Your task to perform on an android device: Open settings Image 0: 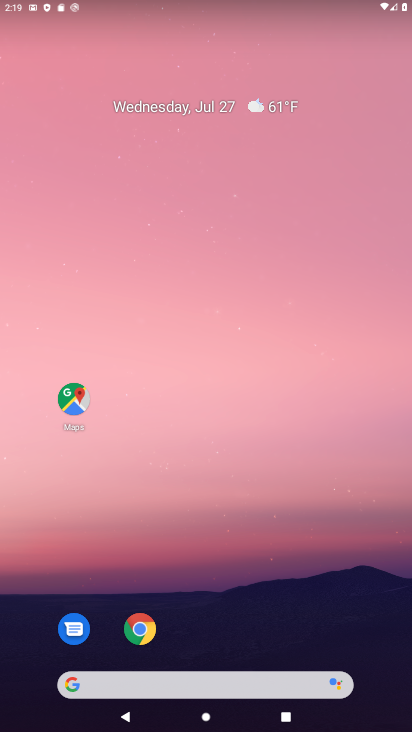
Step 0: drag from (348, 577) to (361, 4)
Your task to perform on an android device: Open settings Image 1: 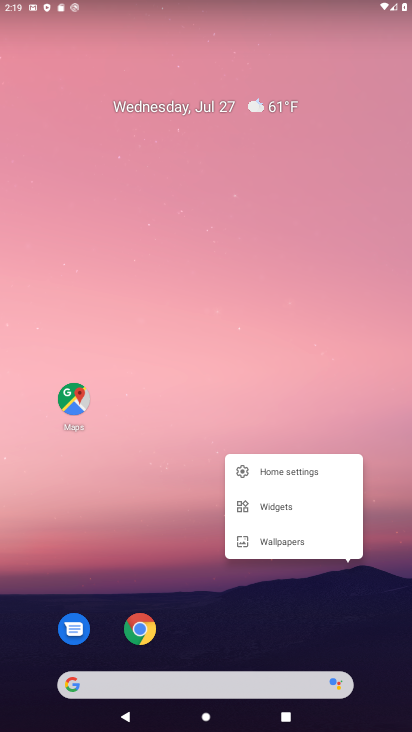
Step 1: click (217, 623)
Your task to perform on an android device: Open settings Image 2: 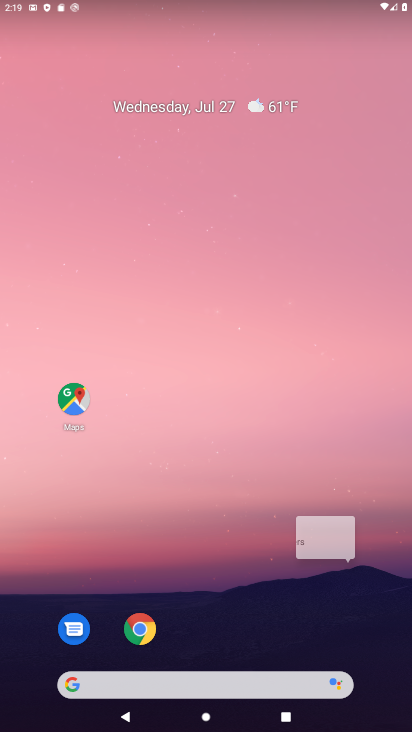
Step 2: drag from (217, 615) to (246, 163)
Your task to perform on an android device: Open settings Image 3: 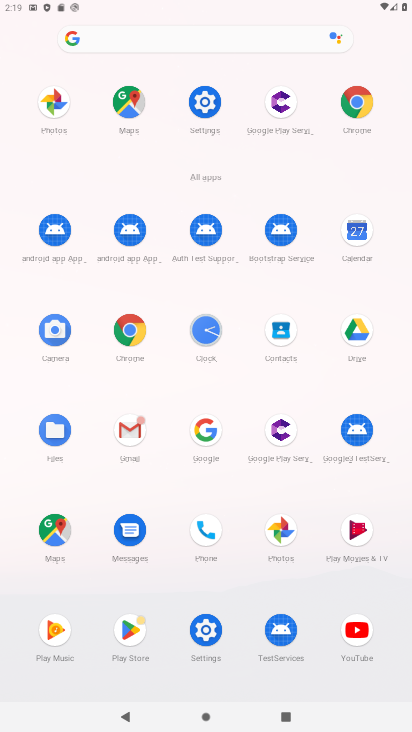
Step 3: click (206, 91)
Your task to perform on an android device: Open settings Image 4: 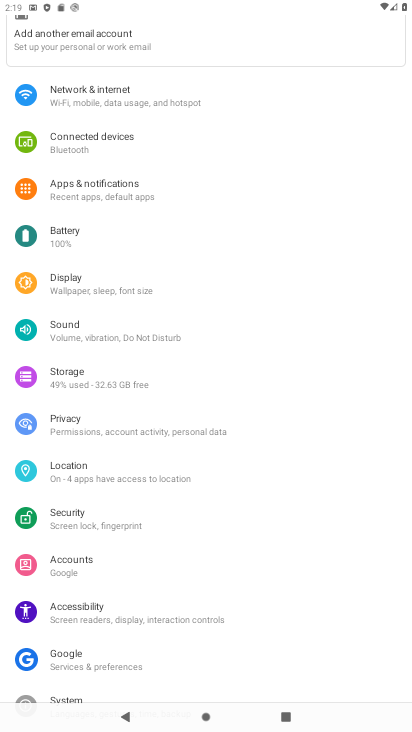
Step 4: task complete